Your task to perform on an android device: toggle translation in the chrome app Image 0: 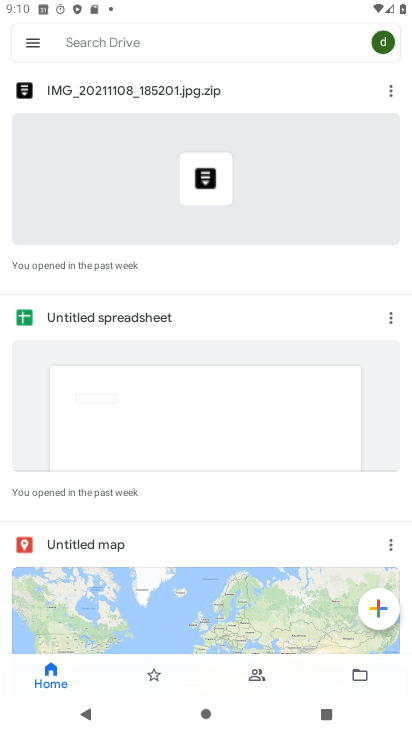
Step 0: press home button
Your task to perform on an android device: toggle translation in the chrome app Image 1: 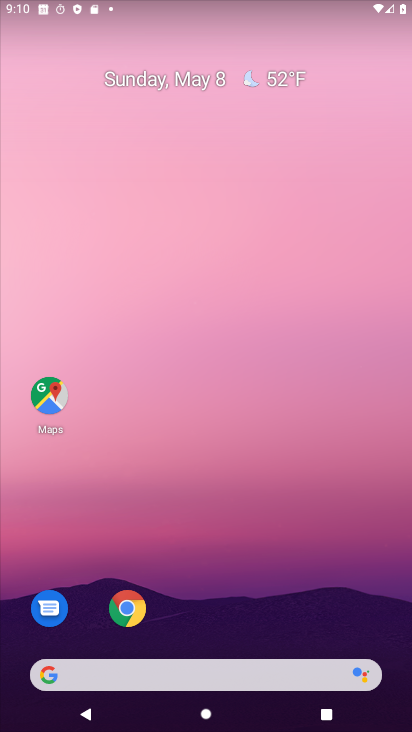
Step 1: drag from (274, 654) to (275, 48)
Your task to perform on an android device: toggle translation in the chrome app Image 2: 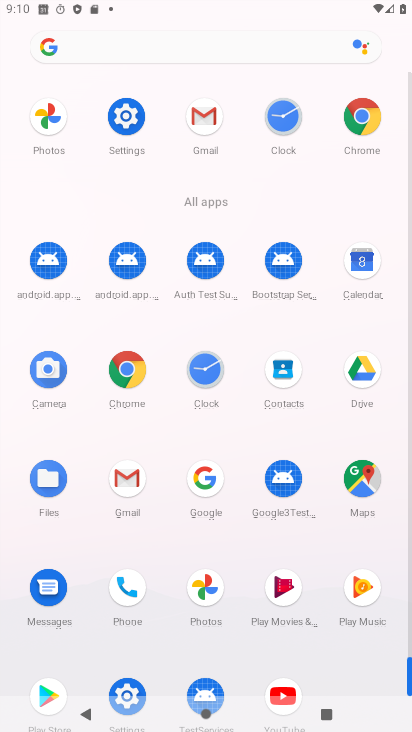
Step 2: click (119, 372)
Your task to perform on an android device: toggle translation in the chrome app Image 3: 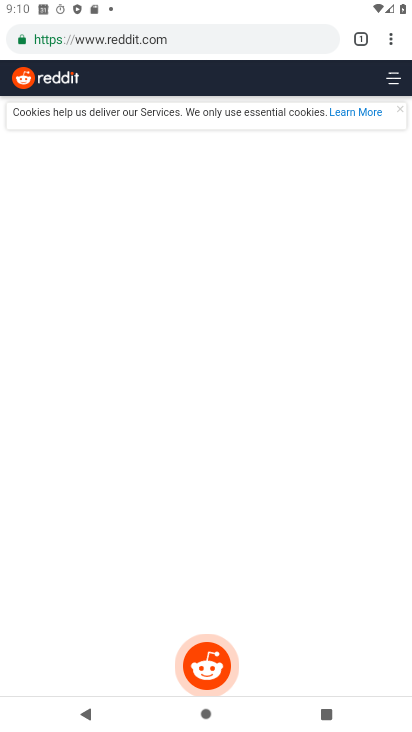
Step 3: drag from (389, 38) to (269, 440)
Your task to perform on an android device: toggle translation in the chrome app Image 4: 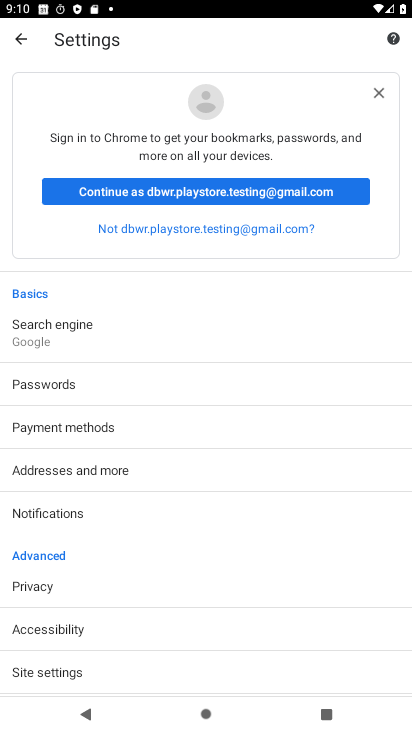
Step 4: drag from (114, 664) to (137, 344)
Your task to perform on an android device: toggle translation in the chrome app Image 5: 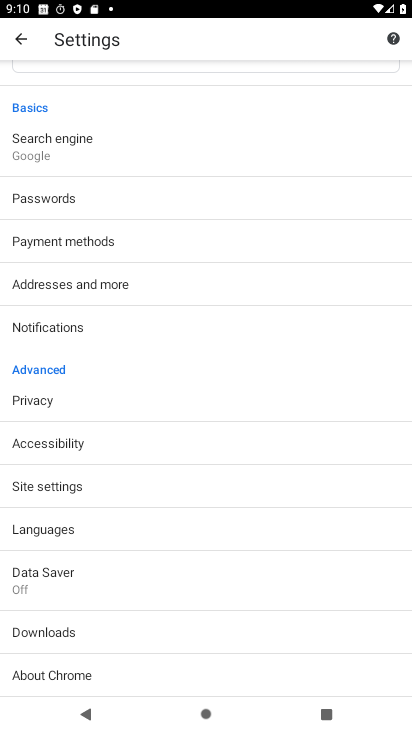
Step 5: click (77, 520)
Your task to perform on an android device: toggle translation in the chrome app Image 6: 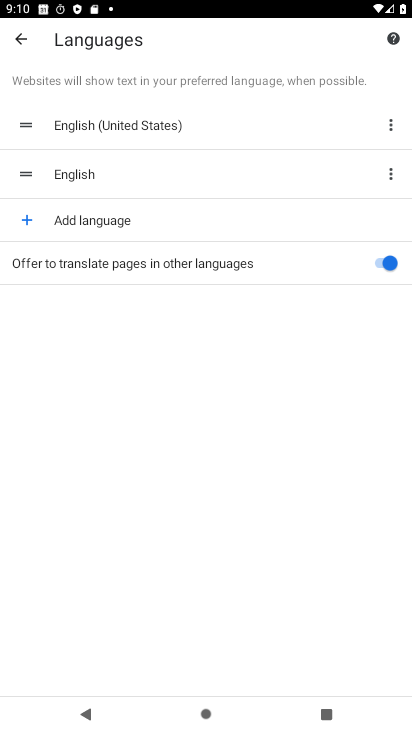
Step 6: click (371, 259)
Your task to perform on an android device: toggle translation in the chrome app Image 7: 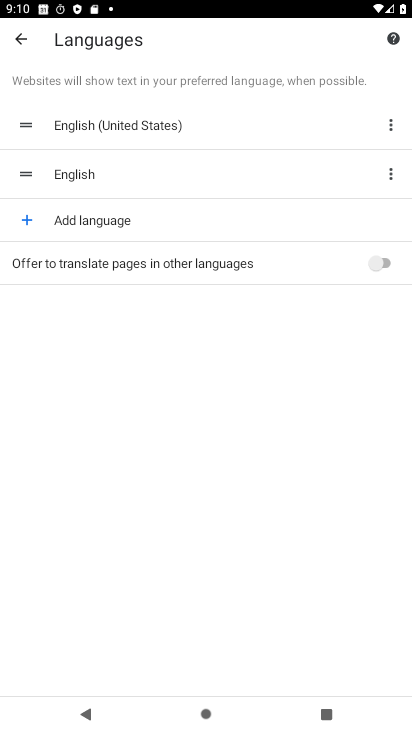
Step 7: task complete